Your task to perform on an android device: check android version Image 0: 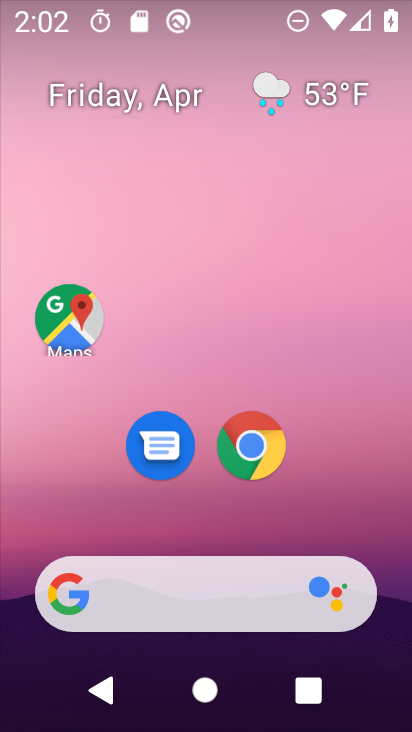
Step 0: drag from (371, 512) to (355, 122)
Your task to perform on an android device: check android version Image 1: 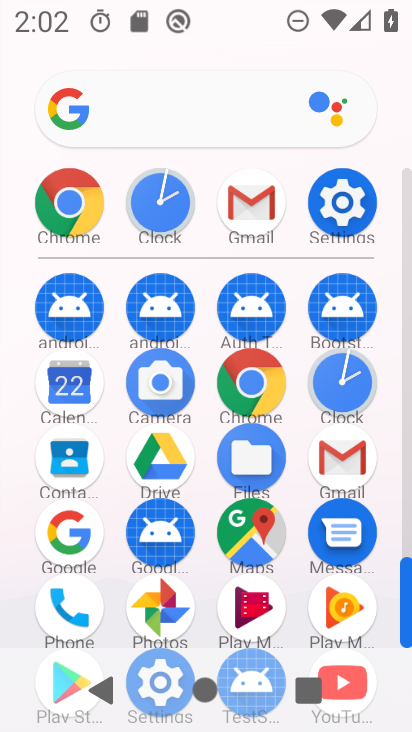
Step 1: click (358, 195)
Your task to perform on an android device: check android version Image 2: 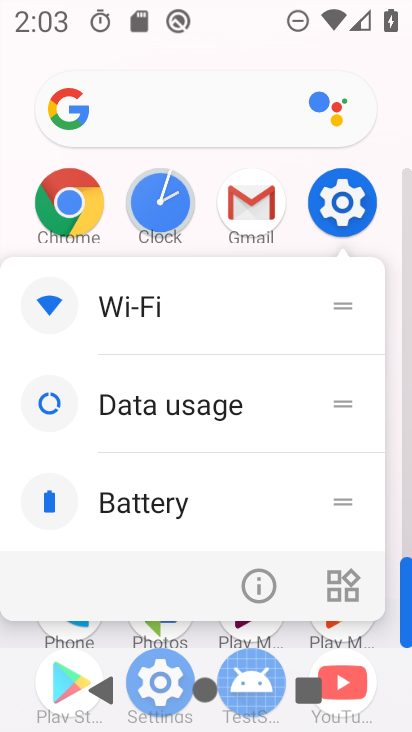
Step 2: click (337, 199)
Your task to perform on an android device: check android version Image 3: 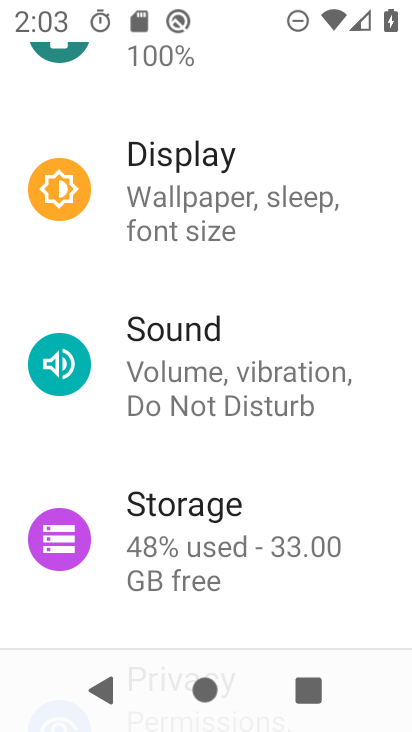
Step 3: drag from (361, 303) to (352, 491)
Your task to perform on an android device: check android version Image 4: 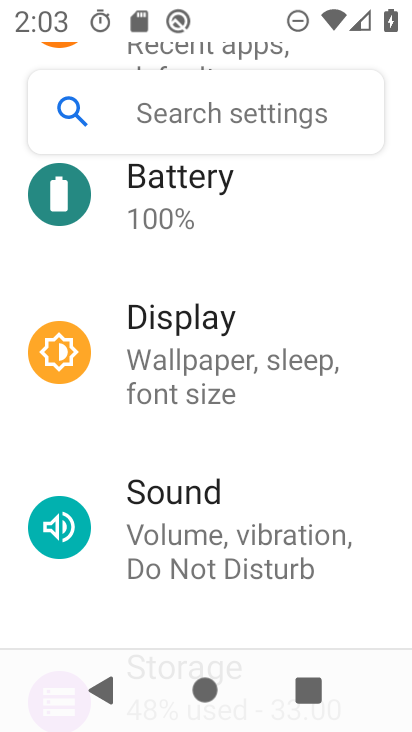
Step 4: drag from (367, 244) to (363, 466)
Your task to perform on an android device: check android version Image 5: 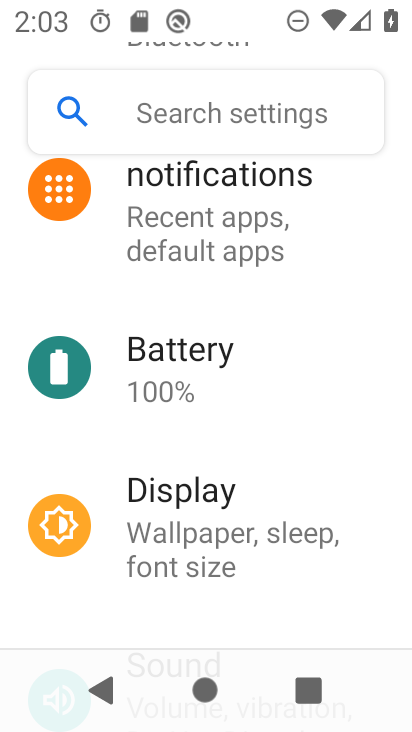
Step 5: drag from (365, 296) to (366, 463)
Your task to perform on an android device: check android version Image 6: 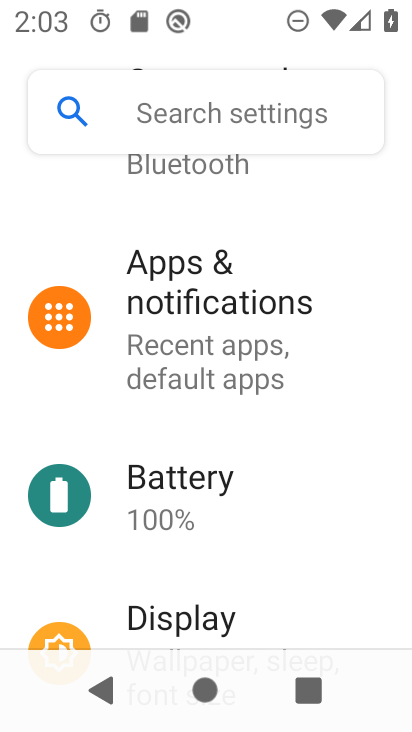
Step 6: drag from (352, 247) to (349, 477)
Your task to perform on an android device: check android version Image 7: 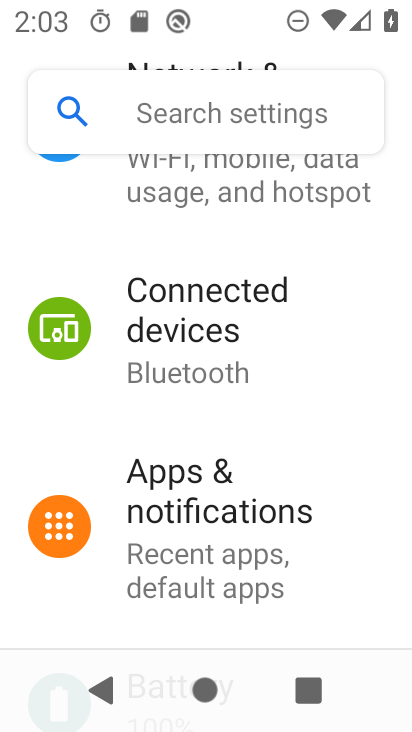
Step 7: drag from (348, 256) to (350, 463)
Your task to perform on an android device: check android version Image 8: 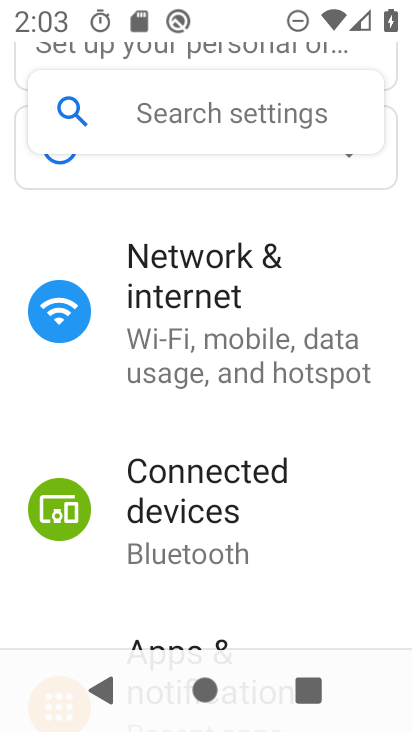
Step 8: drag from (343, 520) to (349, 286)
Your task to perform on an android device: check android version Image 9: 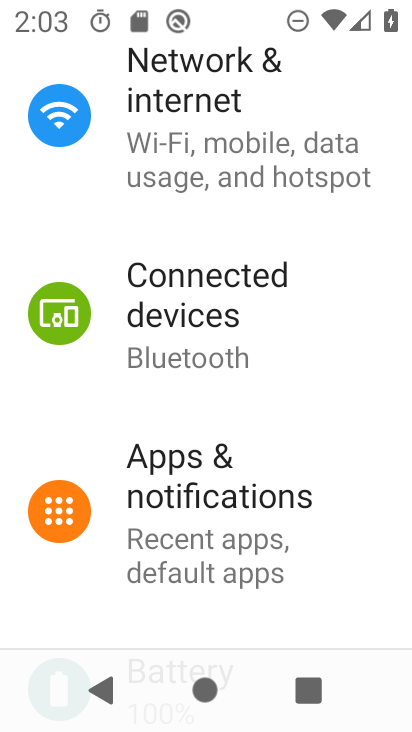
Step 9: drag from (353, 556) to (366, 349)
Your task to perform on an android device: check android version Image 10: 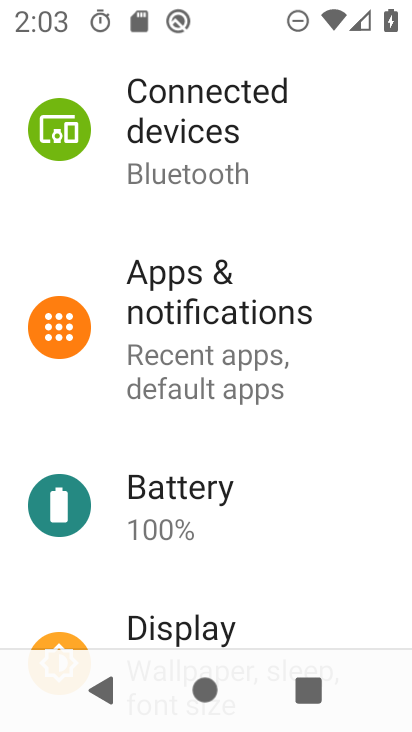
Step 10: drag from (357, 538) to (350, 302)
Your task to perform on an android device: check android version Image 11: 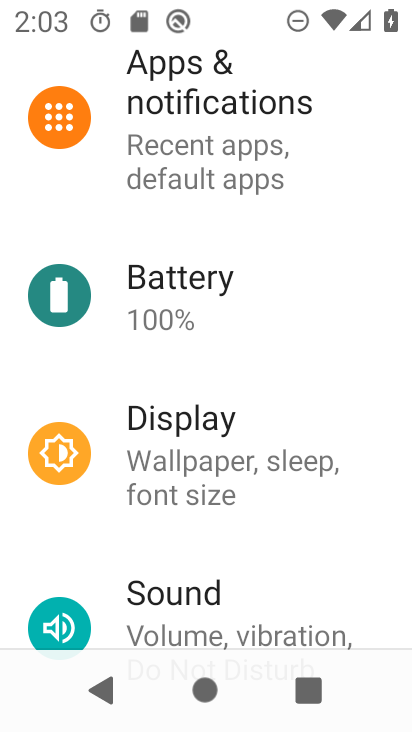
Step 11: drag from (346, 563) to (353, 337)
Your task to perform on an android device: check android version Image 12: 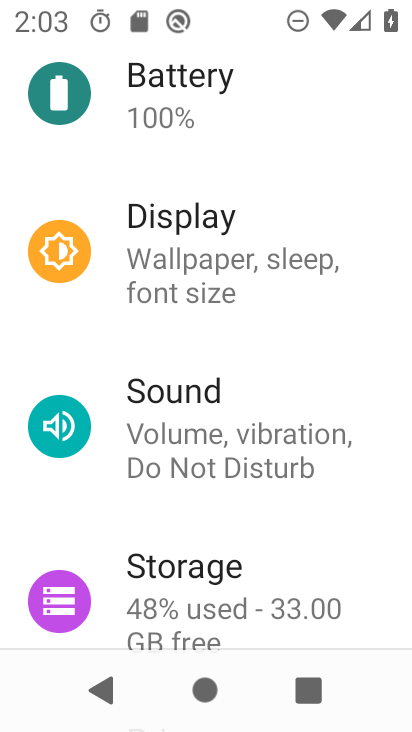
Step 12: drag from (358, 546) to (369, 317)
Your task to perform on an android device: check android version Image 13: 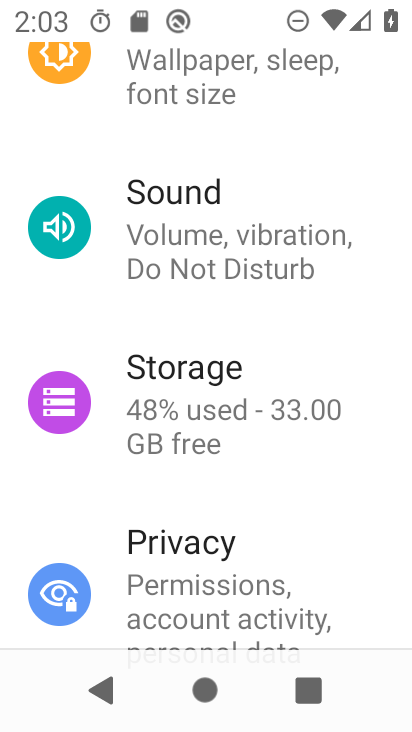
Step 13: drag from (353, 514) to (366, 331)
Your task to perform on an android device: check android version Image 14: 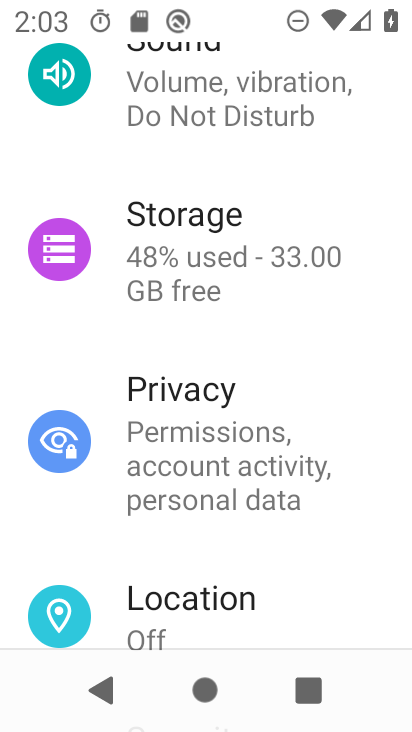
Step 14: drag from (350, 599) to (356, 325)
Your task to perform on an android device: check android version Image 15: 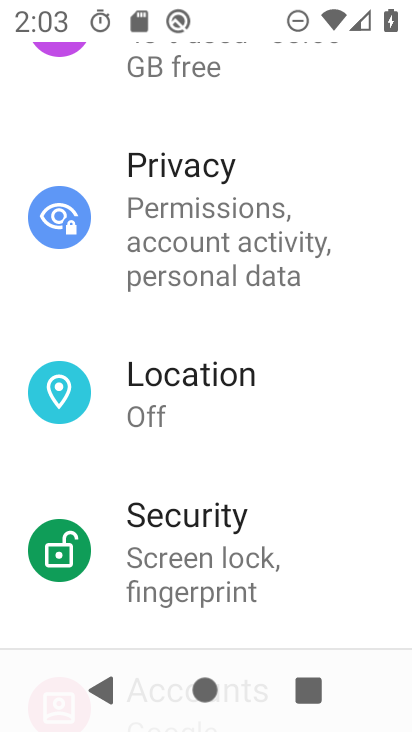
Step 15: drag from (338, 564) to (335, 308)
Your task to perform on an android device: check android version Image 16: 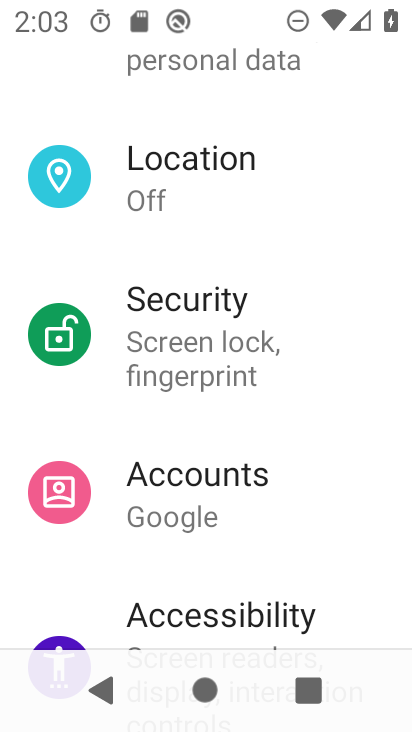
Step 16: drag from (338, 557) to (344, 338)
Your task to perform on an android device: check android version Image 17: 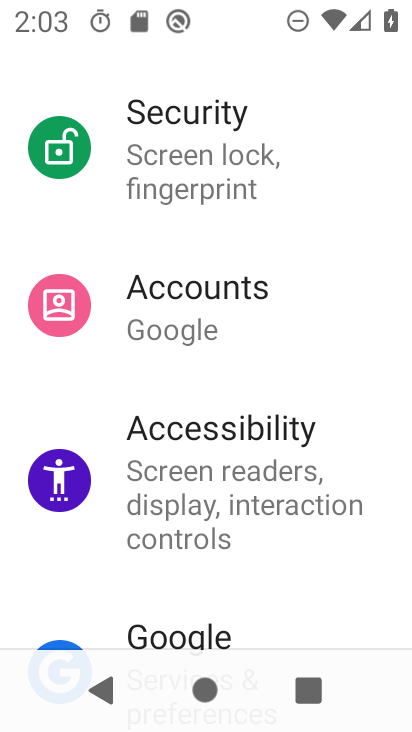
Step 17: drag from (358, 594) to (354, 369)
Your task to perform on an android device: check android version Image 18: 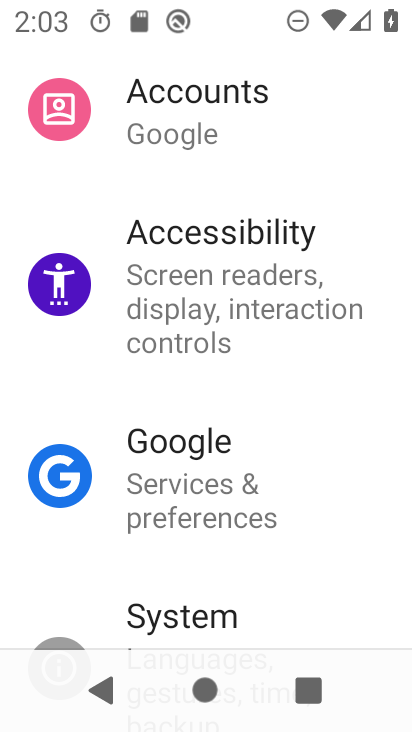
Step 18: drag from (334, 563) to (349, 370)
Your task to perform on an android device: check android version Image 19: 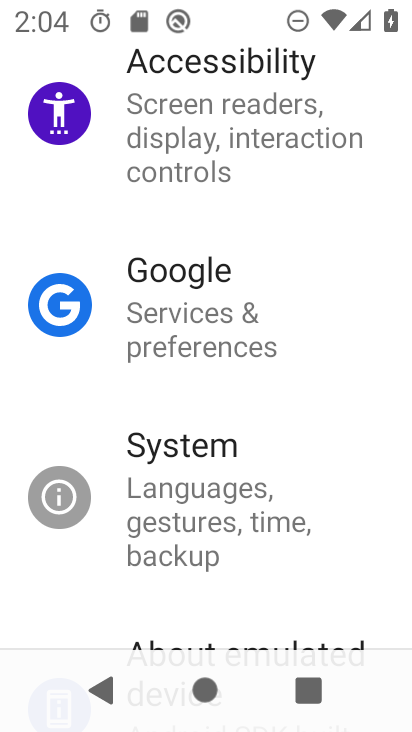
Step 19: click (181, 478)
Your task to perform on an android device: check android version Image 20: 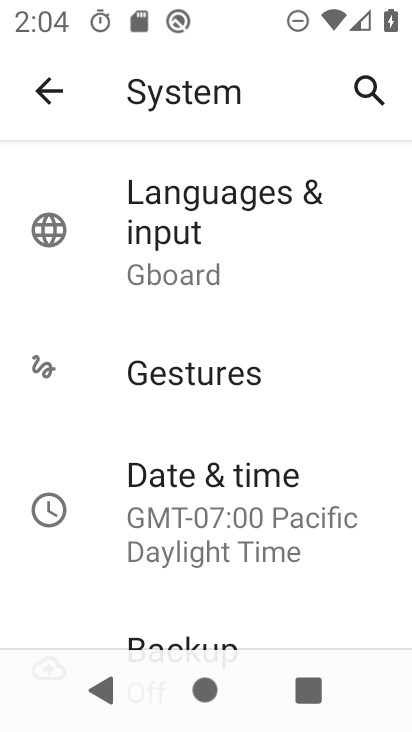
Step 20: drag from (347, 575) to (364, 354)
Your task to perform on an android device: check android version Image 21: 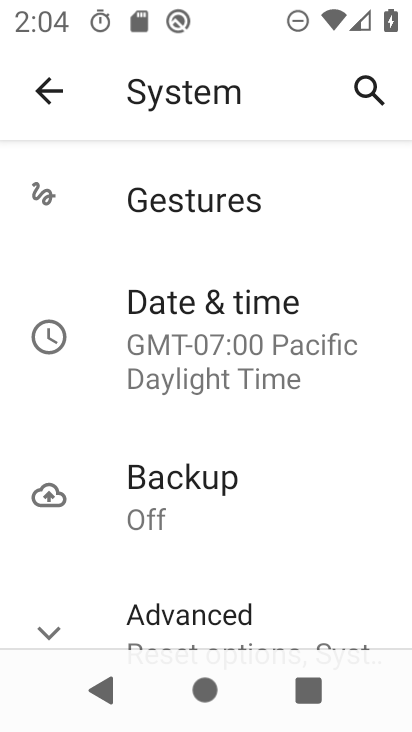
Step 21: drag from (349, 542) to (373, 245)
Your task to perform on an android device: check android version Image 22: 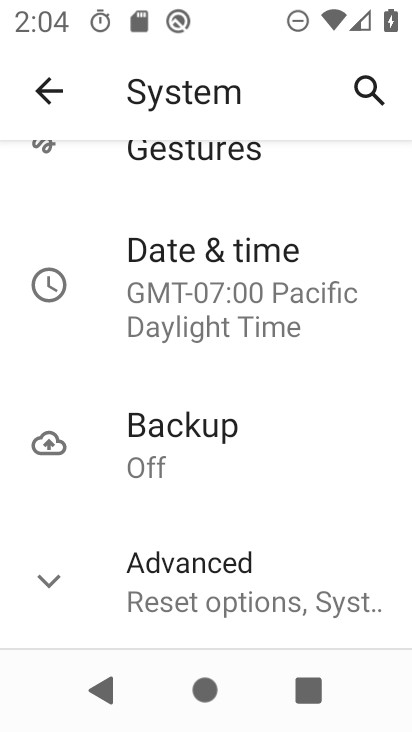
Step 22: click (242, 594)
Your task to perform on an android device: check android version Image 23: 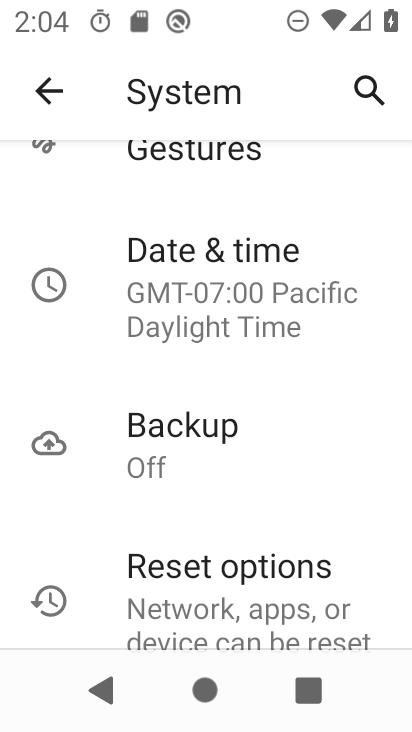
Step 23: drag from (369, 586) to (362, 295)
Your task to perform on an android device: check android version Image 24: 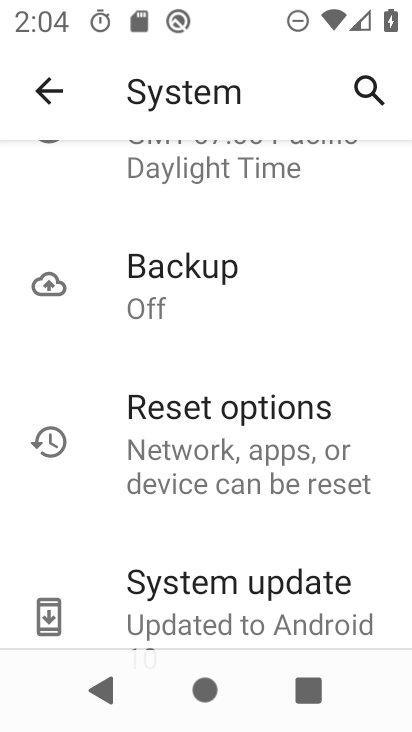
Step 24: drag from (354, 541) to (371, 301)
Your task to perform on an android device: check android version Image 25: 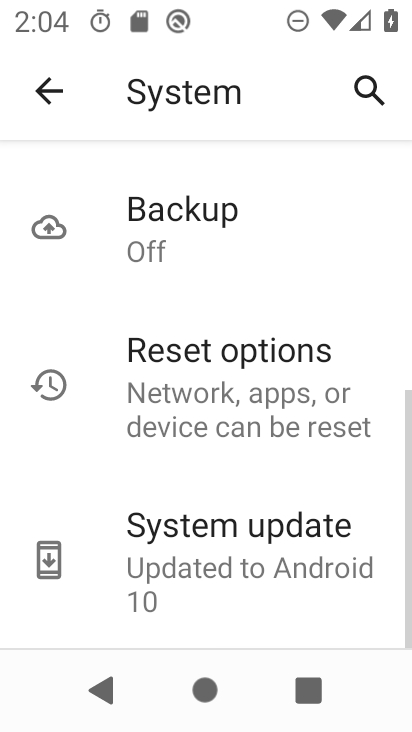
Step 25: click (288, 566)
Your task to perform on an android device: check android version Image 26: 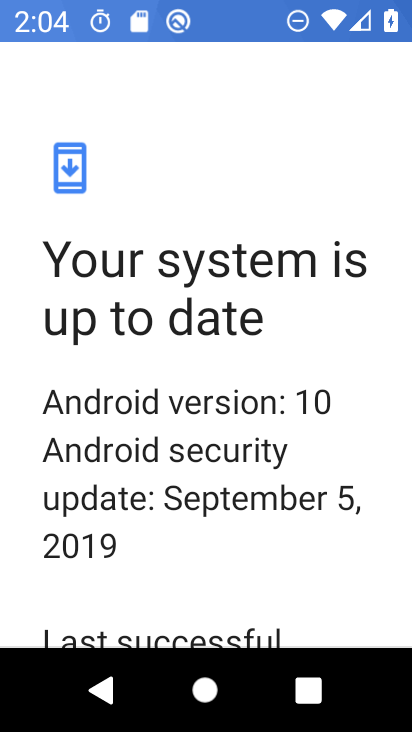
Step 26: task complete